Your task to perform on an android device: turn on priority inbox in the gmail app Image 0: 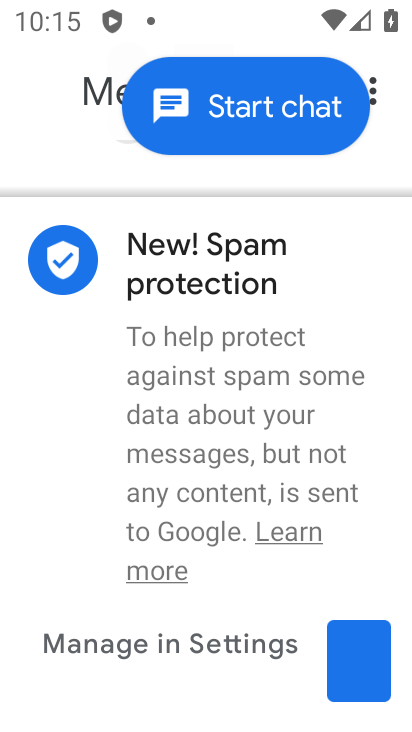
Step 0: press home button
Your task to perform on an android device: turn on priority inbox in the gmail app Image 1: 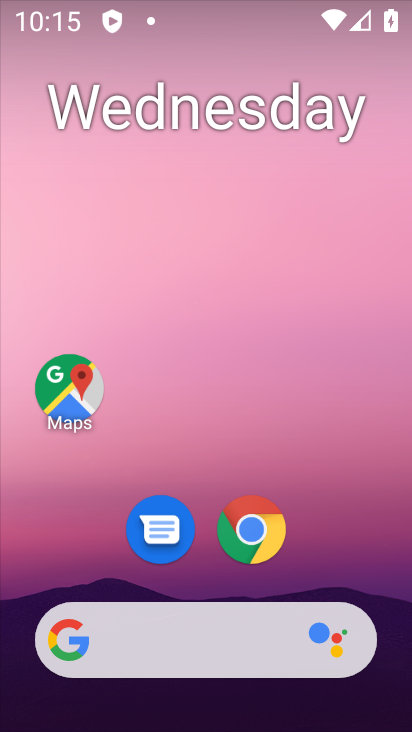
Step 1: drag from (390, 616) to (320, 82)
Your task to perform on an android device: turn on priority inbox in the gmail app Image 2: 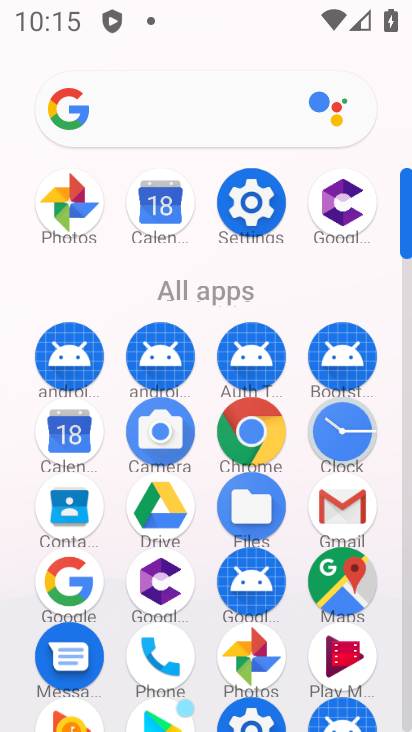
Step 2: click (339, 504)
Your task to perform on an android device: turn on priority inbox in the gmail app Image 3: 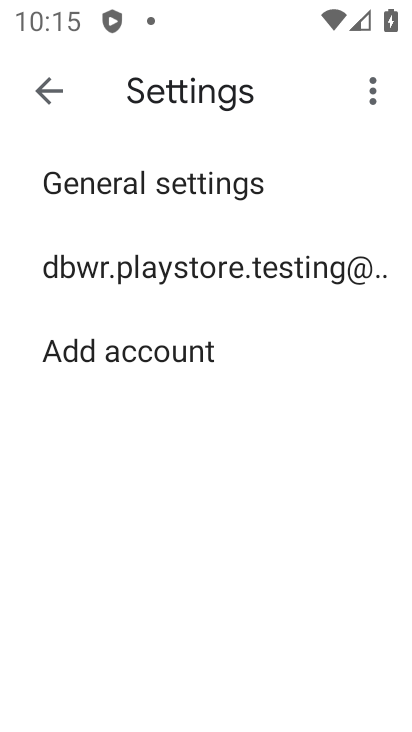
Step 3: click (176, 270)
Your task to perform on an android device: turn on priority inbox in the gmail app Image 4: 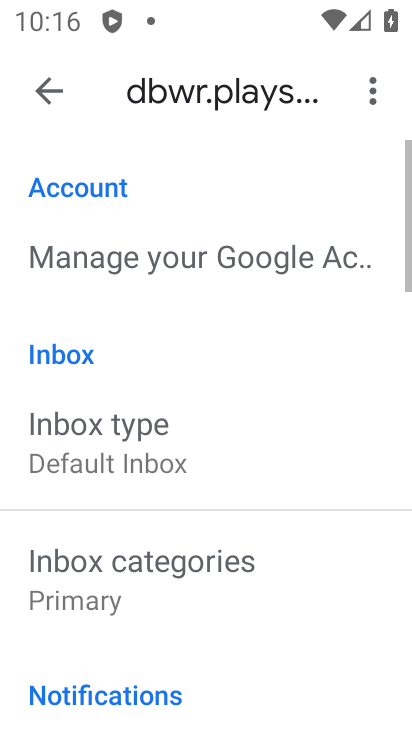
Step 4: click (118, 428)
Your task to perform on an android device: turn on priority inbox in the gmail app Image 5: 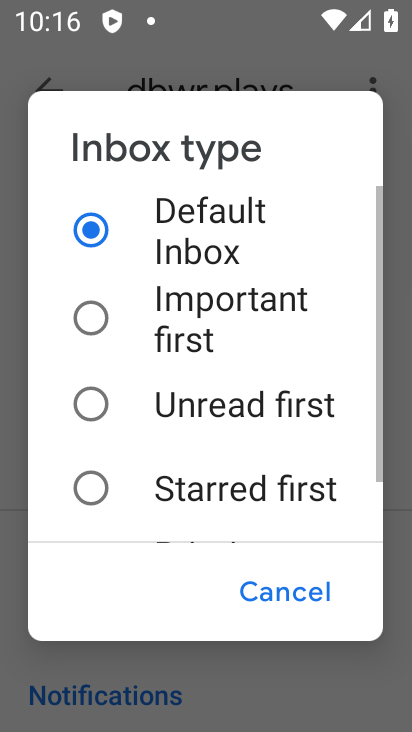
Step 5: drag from (160, 486) to (166, 118)
Your task to perform on an android device: turn on priority inbox in the gmail app Image 6: 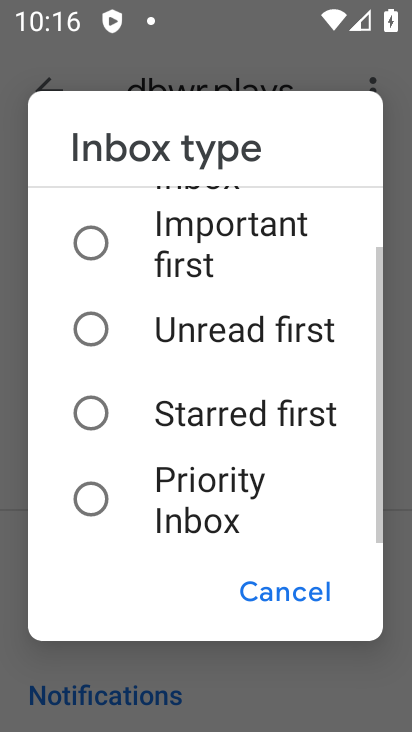
Step 6: click (87, 510)
Your task to perform on an android device: turn on priority inbox in the gmail app Image 7: 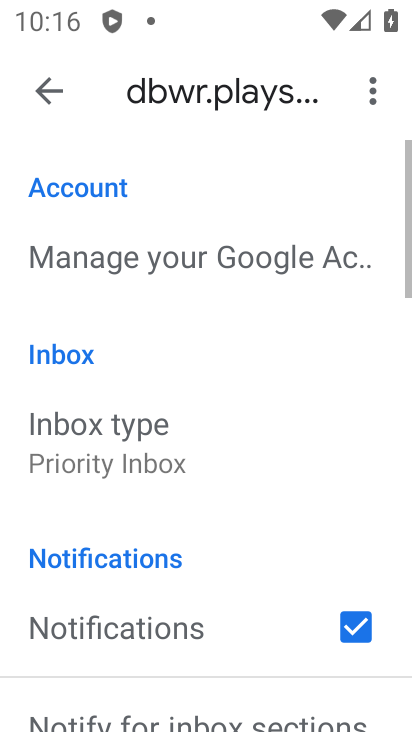
Step 7: task complete